Your task to perform on an android device: turn on sleep mode Image 0: 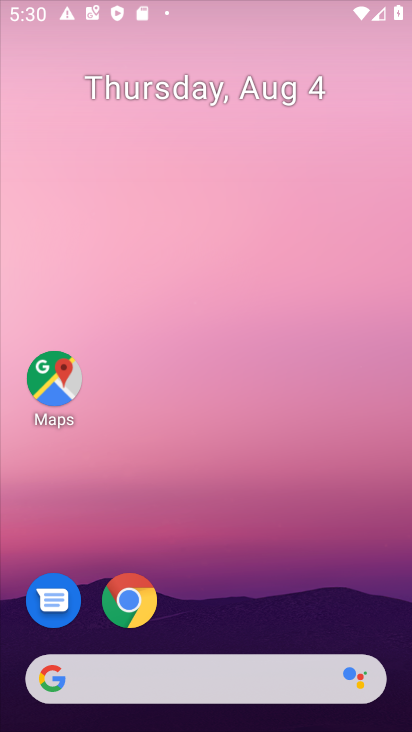
Step 0: click (239, 686)
Your task to perform on an android device: turn on sleep mode Image 1: 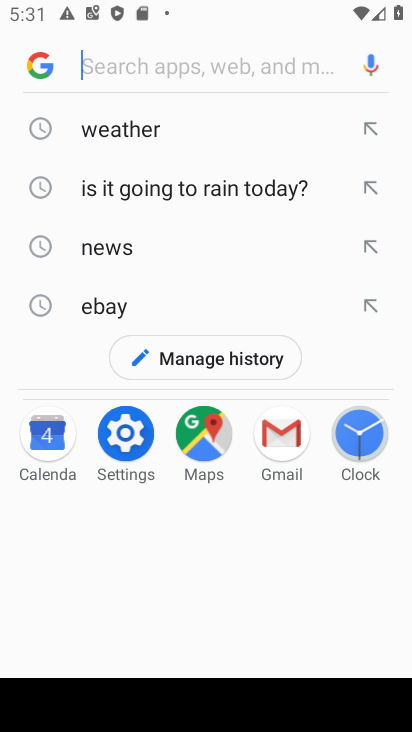
Step 1: press back button
Your task to perform on an android device: turn on sleep mode Image 2: 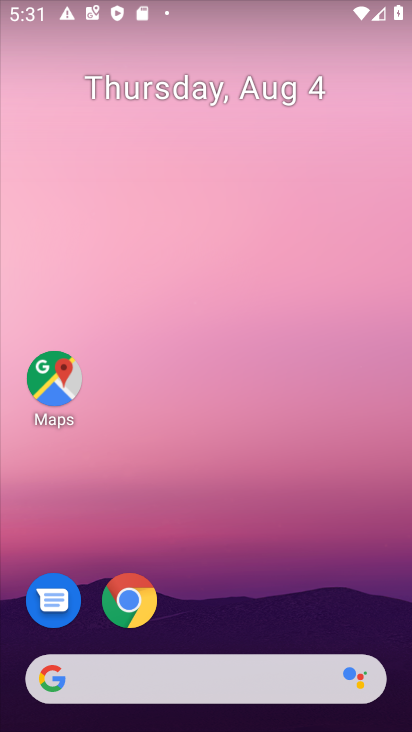
Step 2: drag from (254, 572) to (337, 1)
Your task to perform on an android device: turn on sleep mode Image 3: 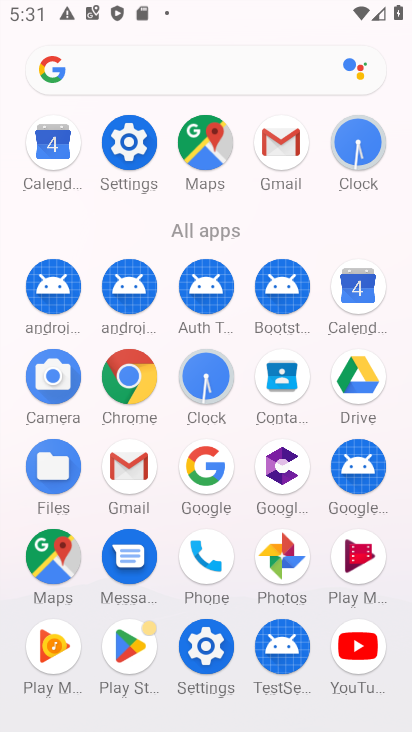
Step 3: click (131, 142)
Your task to perform on an android device: turn on sleep mode Image 4: 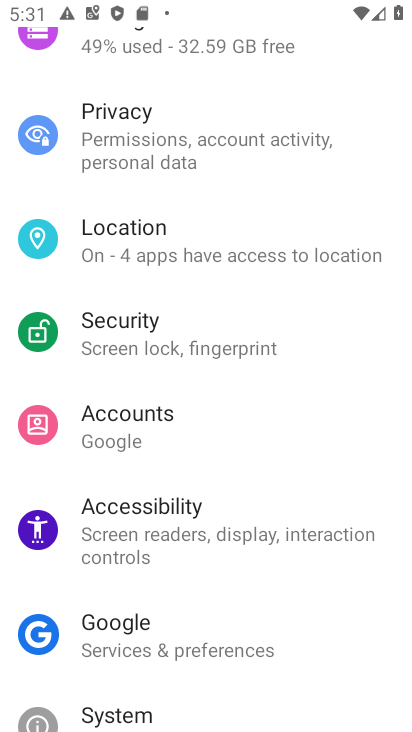
Step 4: drag from (184, 104) to (239, 686)
Your task to perform on an android device: turn on sleep mode Image 5: 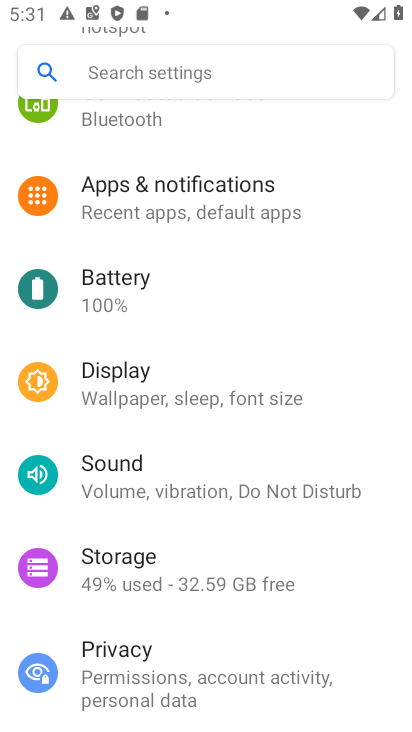
Step 5: click (134, 66)
Your task to perform on an android device: turn on sleep mode Image 6: 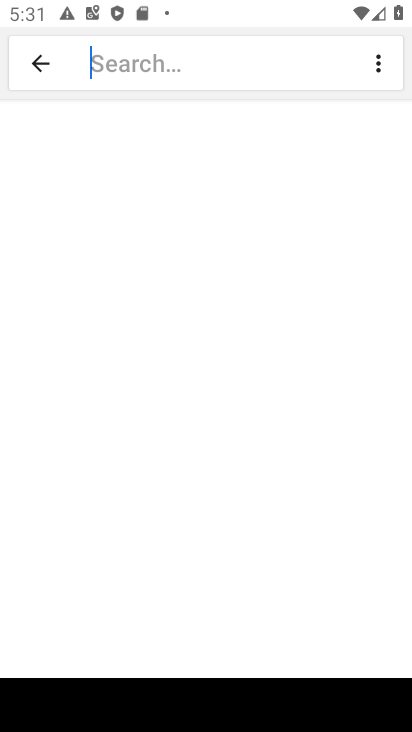
Step 6: type "sleep mode"
Your task to perform on an android device: turn on sleep mode Image 7: 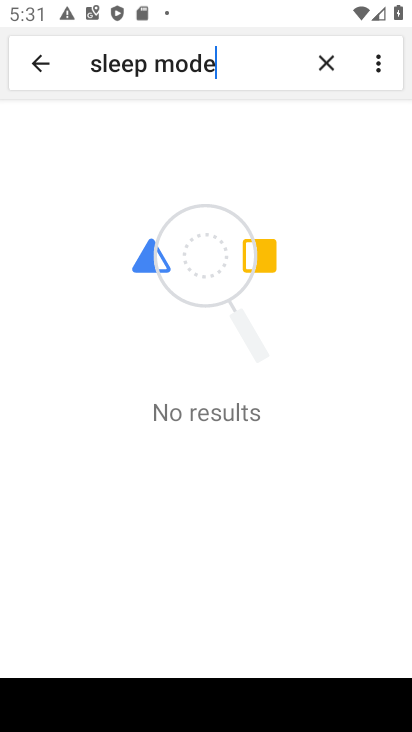
Step 7: task complete